Your task to perform on an android device: When is my next appointment? Image 0: 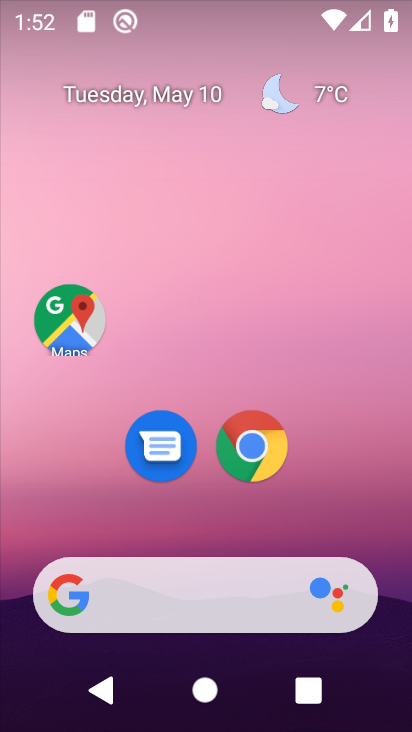
Step 0: drag from (324, 493) to (366, 163)
Your task to perform on an android device: When is my next appointment? Image 1: 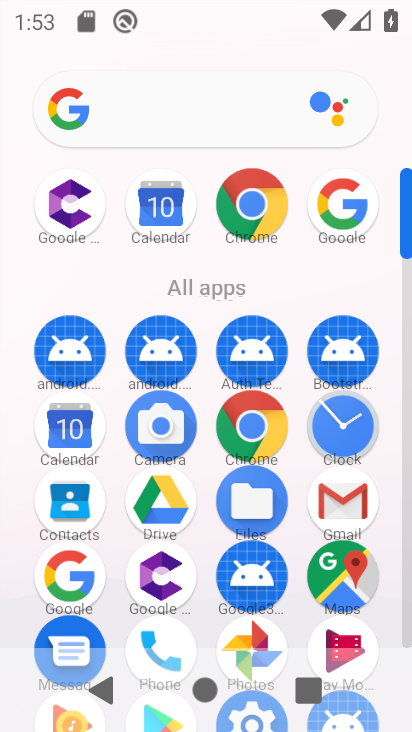
Step 1: click (79, 446)
Your task to perform on an android device: When is my next appointment? Image 2: 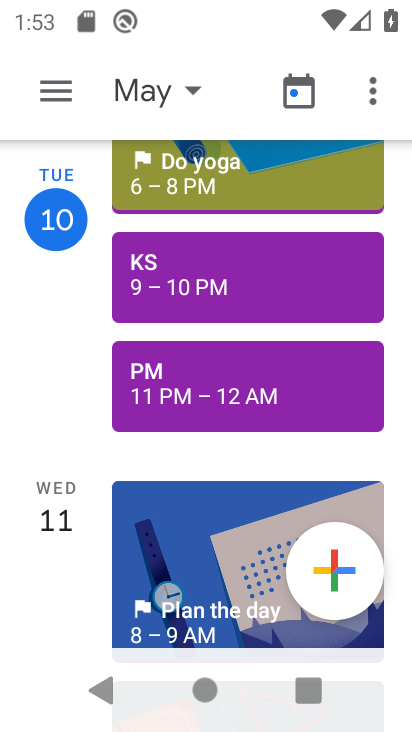
Step 2: click (171, 79)
Your task to perform on an android device: When is my next appointment? Image 3: 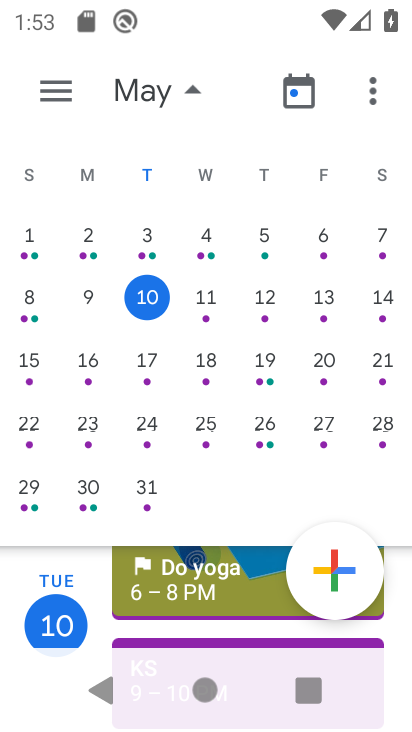
Step 3: click (213, 311)
Your task to perform on an android device: When is my next appointment? Image 4: 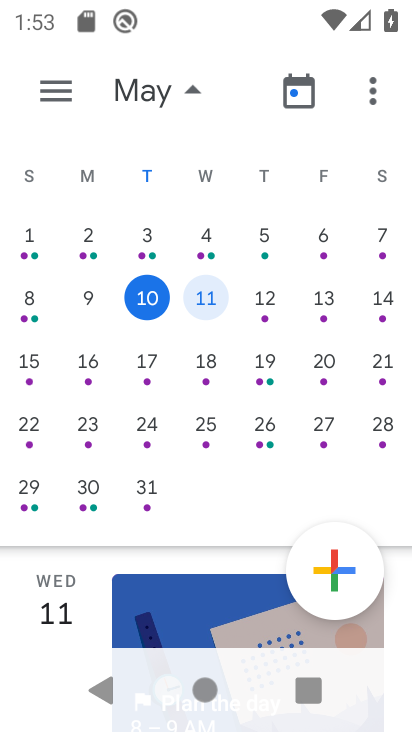
Step 4: task complete